Your task to perform on an android device: set the stopwatch Image 0: 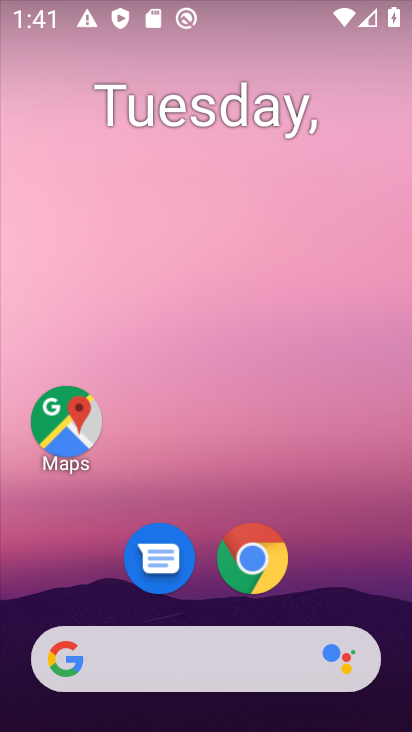
Step 0: drag from (196, 490) to (197, 100)
Your task to perform on an android device: set the stopwatch Image 1: 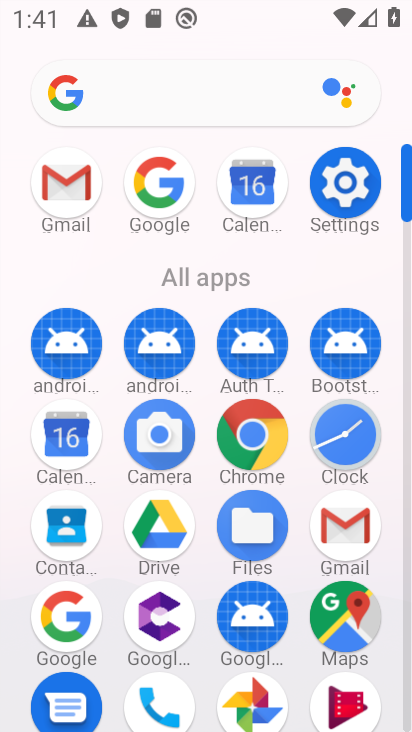
Step 1: click (331, 443)
Your task to perform on an android device: set the stopwatch Image 2: 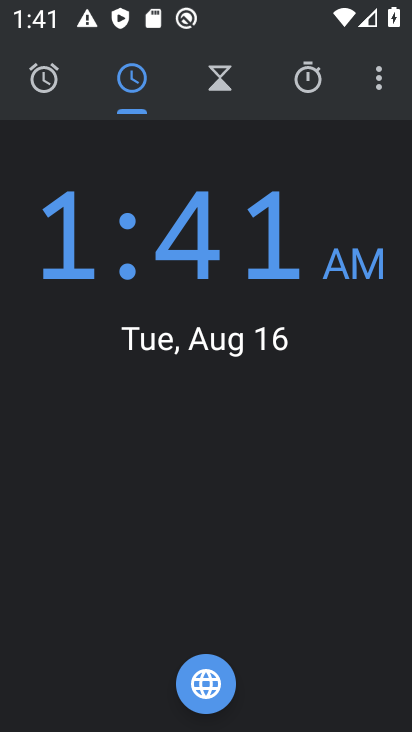
Step 2: click (294, 79)
Your task to perform on an android device: set the stopwatch Image 3: 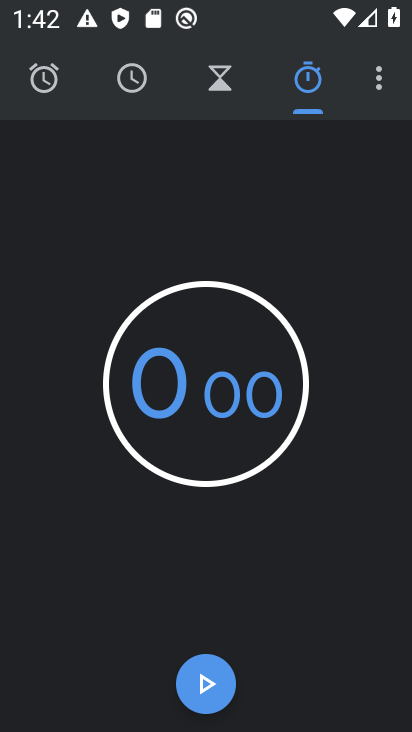
Step 3: click (202, 694)
Your task to perform on an android device: set the stopwatch Image 4: 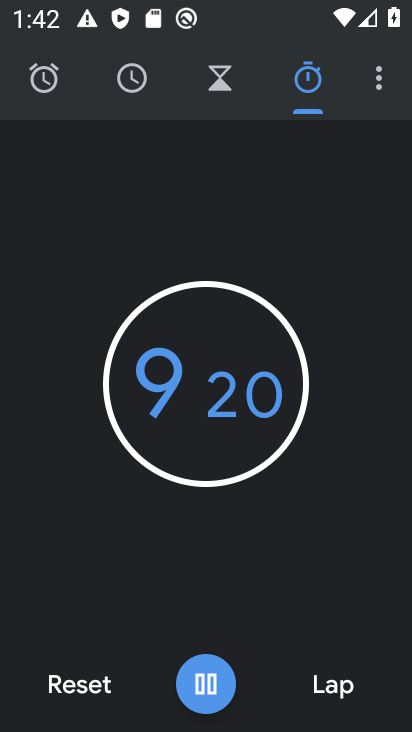
Step 4: task complete